Your task to perform on an android device: toggle airplane mode Image 0: 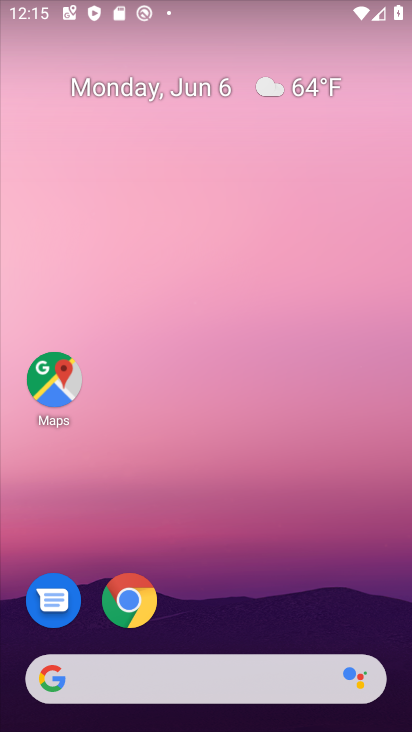
Step 0: drag from (396, 704) to (347, 166)
Your task to perform on an android device: toggle airplane mode Image 1: 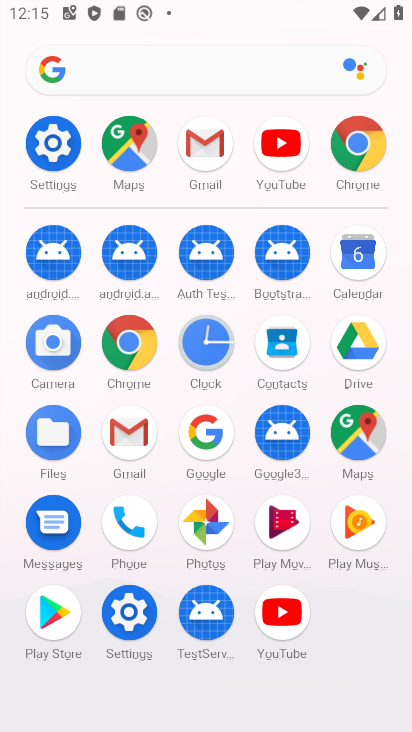
Step 1: click (68, 149)
Your task to perform on an android device: toggle airplane mode Image 2: 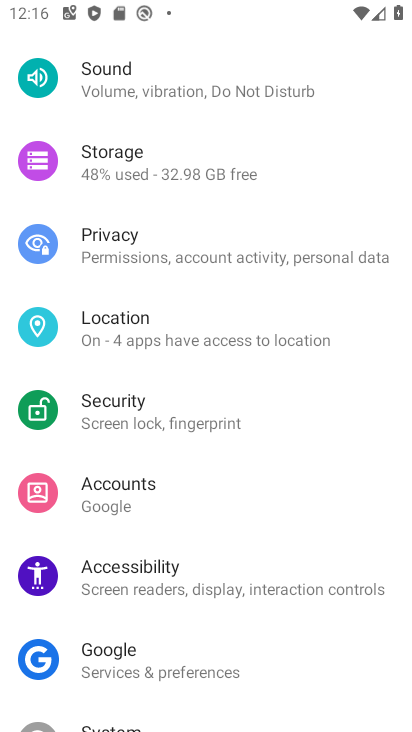
Step 2: drag from (259, 692) to (226, 264)
Your task to perform on an android device: toggle airplane mode Image 3: 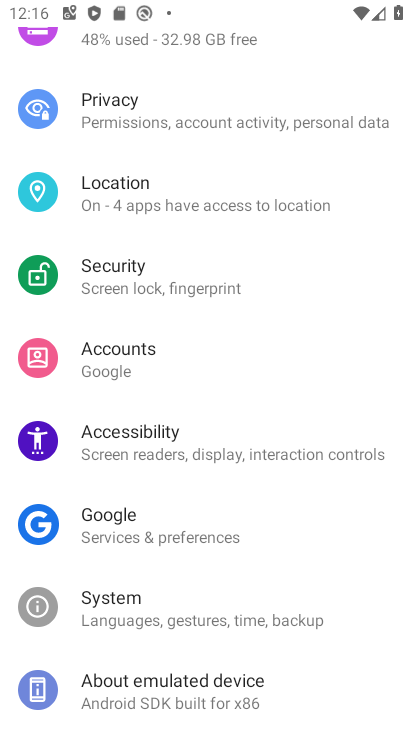
Step 3: drag from (228, 129) to (314, 668)
Your task to perform on an android device: toggle airplane mode Image 4: 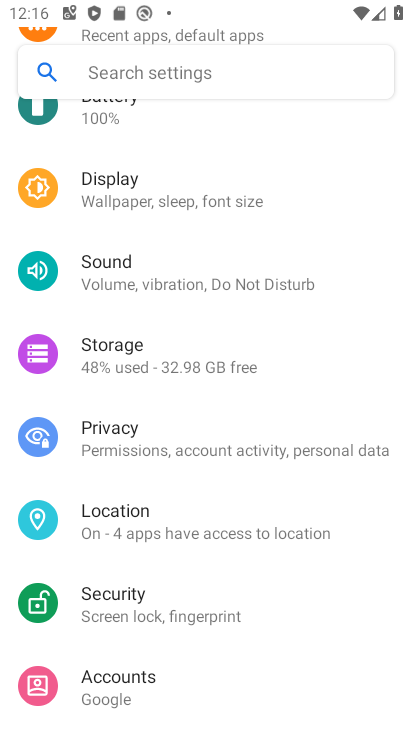
Step 4: drag from (277, 136) to (358, 660)
Your task to perform on an android device: toggle airplane mode Image 5: 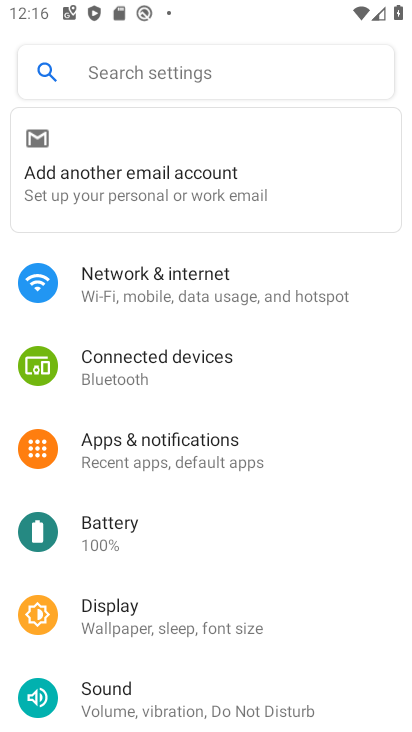
Step 5: click (182, 294)
Your task to perform on an android device: toggle airplane mode Image 6: 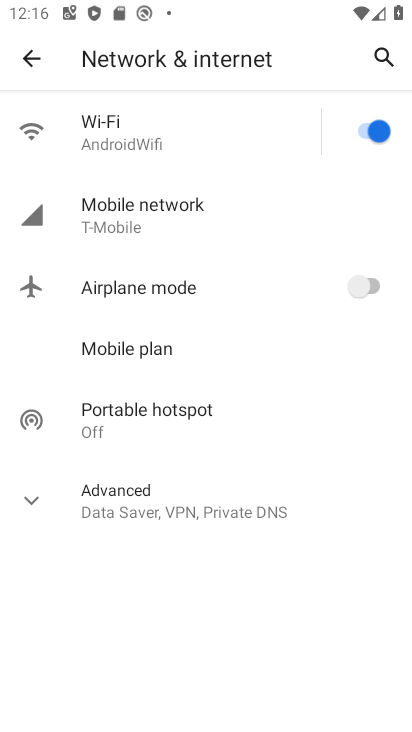
Step 6: click (379, 289)
Your task to perform on an android device: toggle airplane mode Image 7: 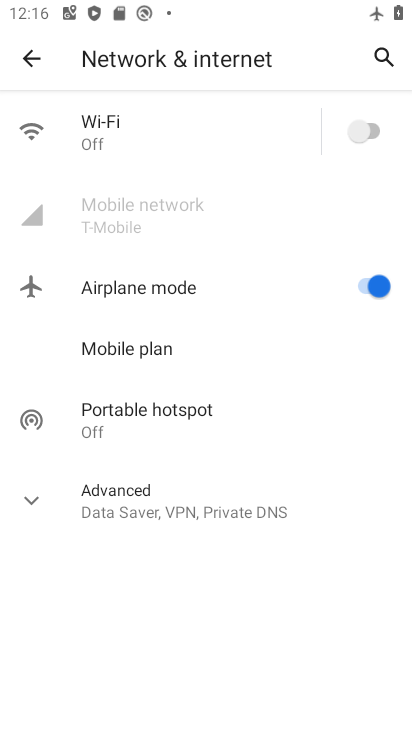
Step 7: task complete